Your task to perform on an android device: toggle show notifications on the lock screen Image 0: 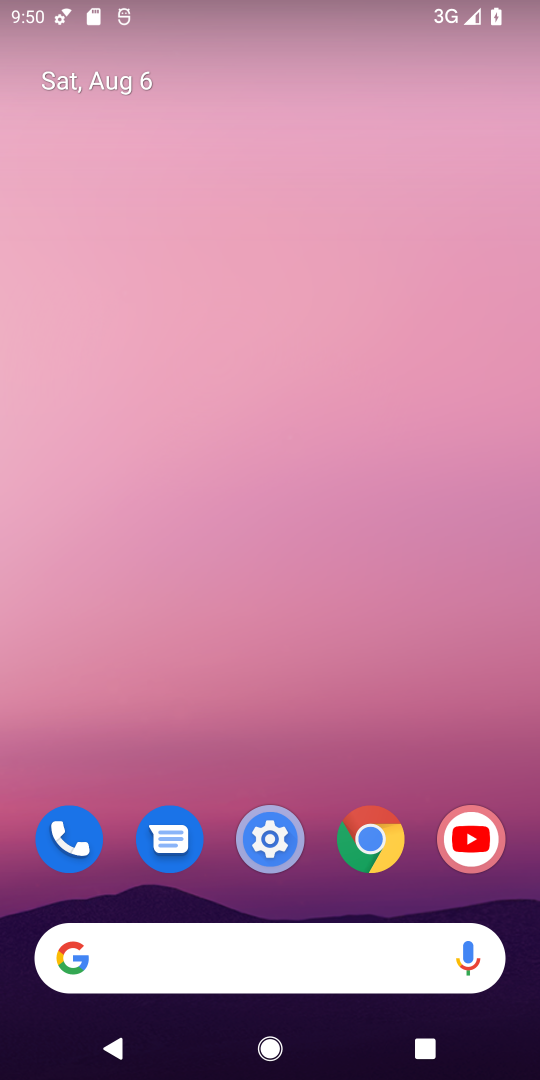
Step 0: press home button
Your task to perform on an android device: toggle show notifications on the lock screen Image 1: 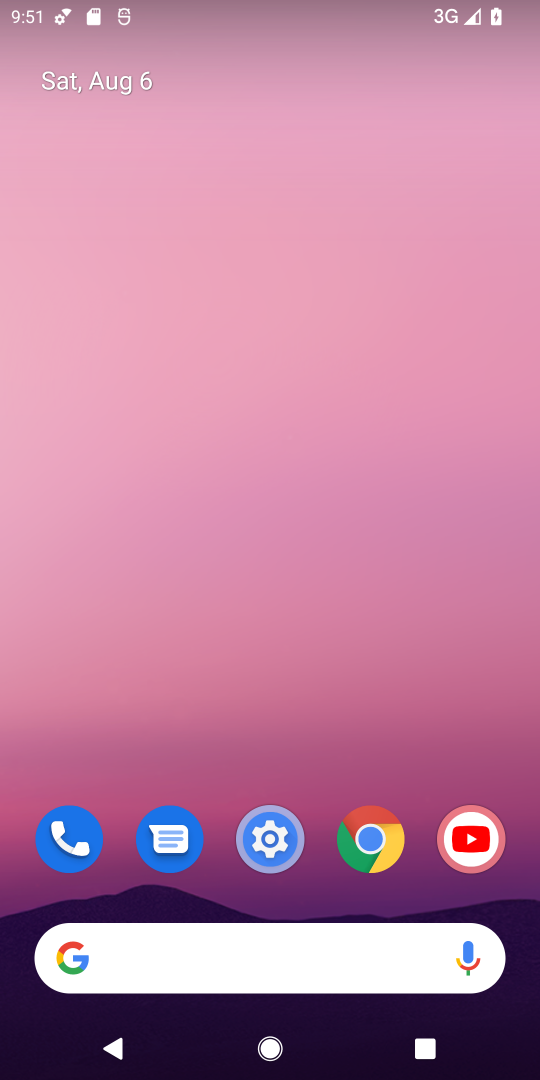
Step 1: drag from (319, 893) to (320, 153)
Your task to perform on an android device: toggle show notifications on the lock screen Image 2: 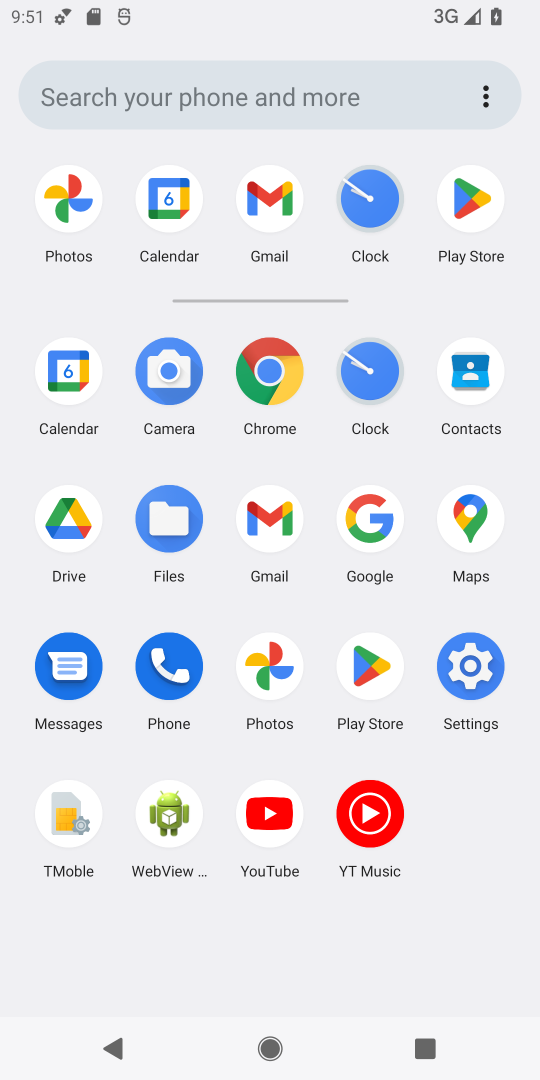
Step 2: click (460, 670)
Your task to perform on an android device: toggle show notifications on the lock screen Image 3: 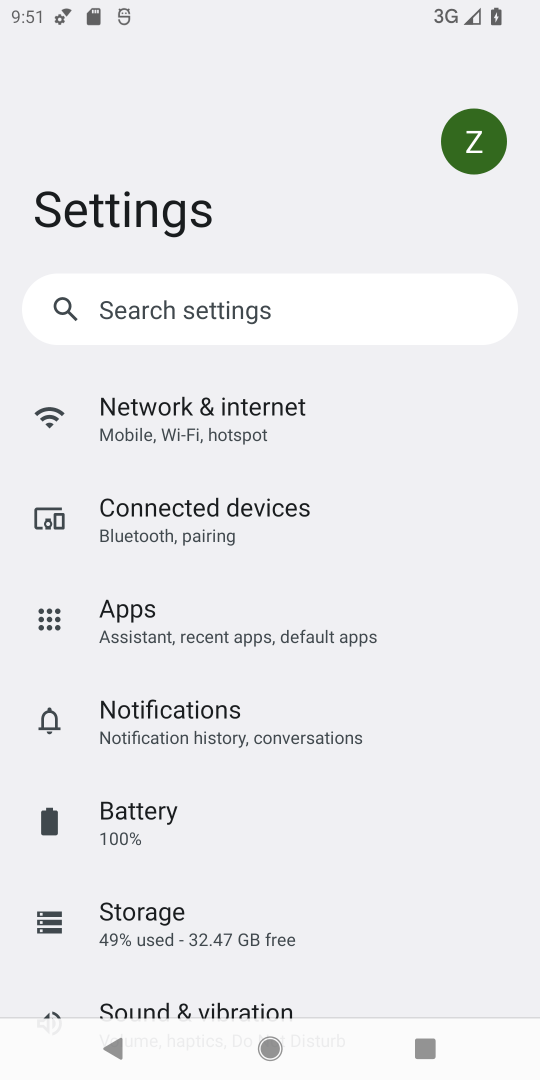
Step 3: click (282, 719)
Your task to perform on an android device: toggle show notifications on the lock screen Image 4: 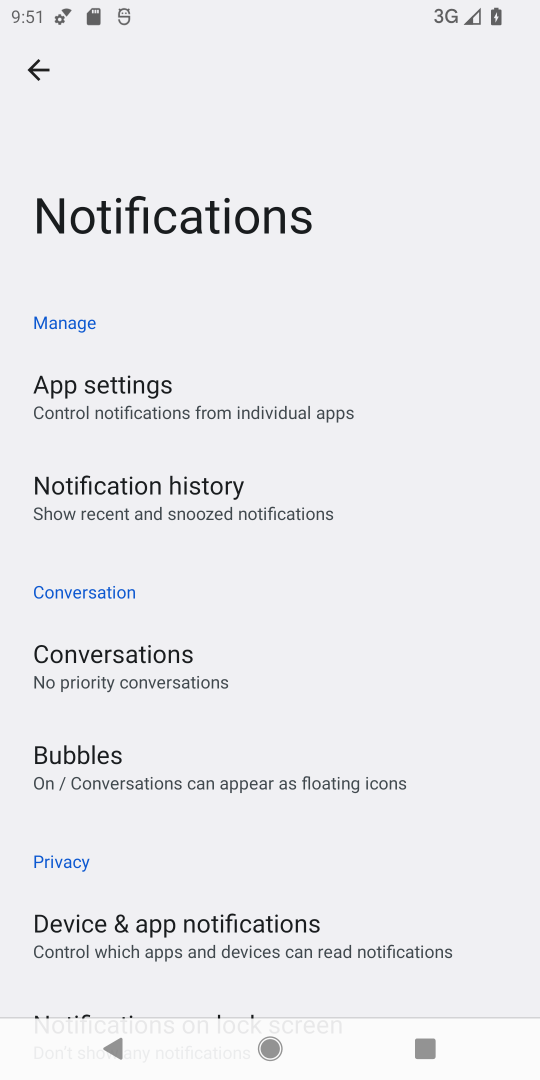
Step 4: drag from (235, 901) to (218, 344)
Your task to perform on an android device: toggle show notifications on the lock screen Image 5: 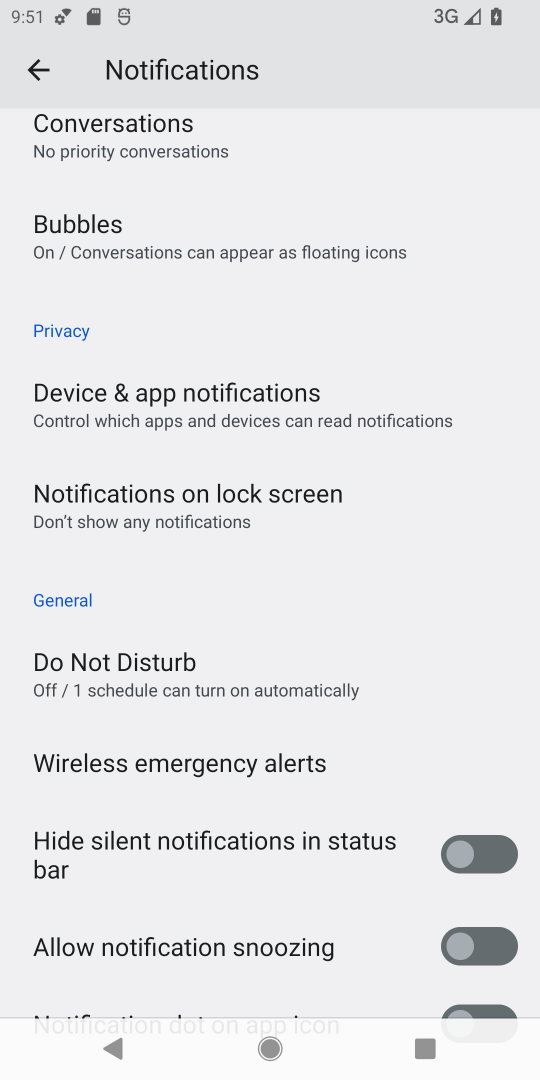
Step 5: click (281, 506)
Your task to perform on an android device: toggle show notifications on the lock screen Image 6: 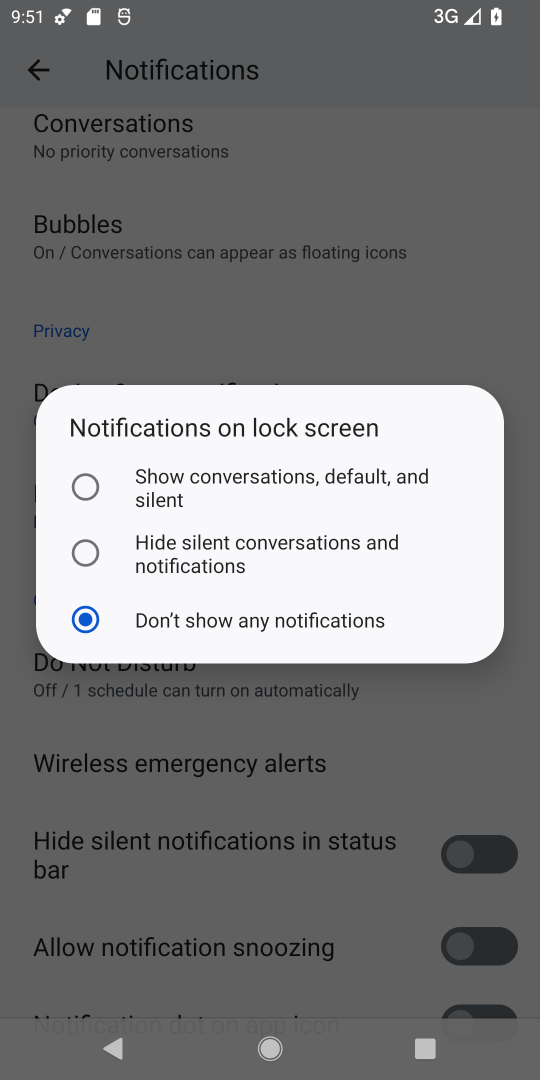
Step 6: click (91, 476)
Your task to perform on an android device: toggle show notifications on the lock screen Image 7: 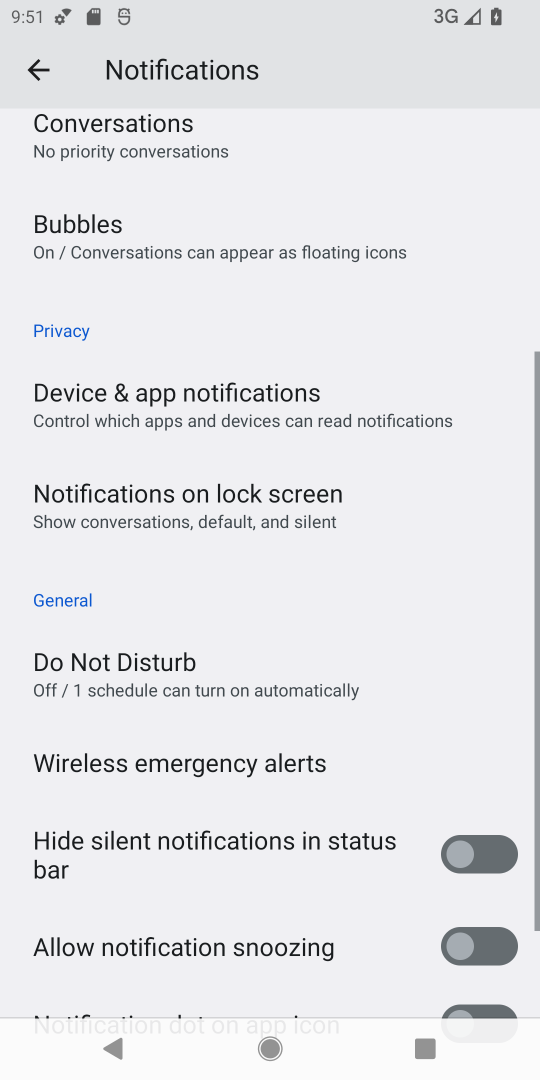
Step 7: task complete